Your task to perform on an android device: What's on my calendar today? Image 0: 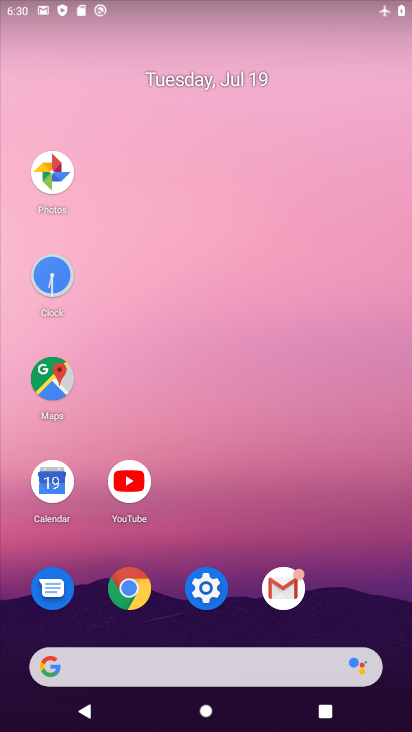
Step 0: click (60, 477)
Your task to perform on an android device: What's on my calendar today? Image 1: 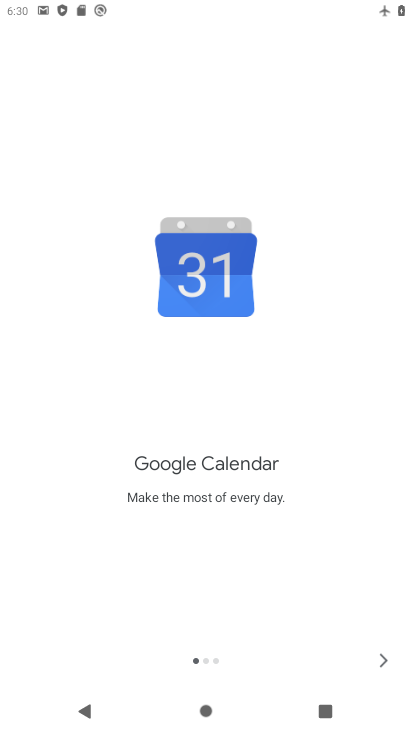
Step 1: click (385, 657)
Your task to perform on an android device: What's on my calendar today? Image 2: 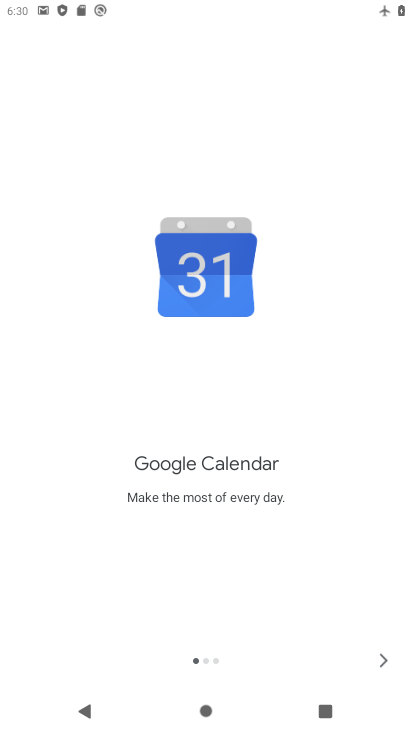
Step 2: click (385, 657)
Your task to perform on an android device: What's on my calendar today? Image 3: 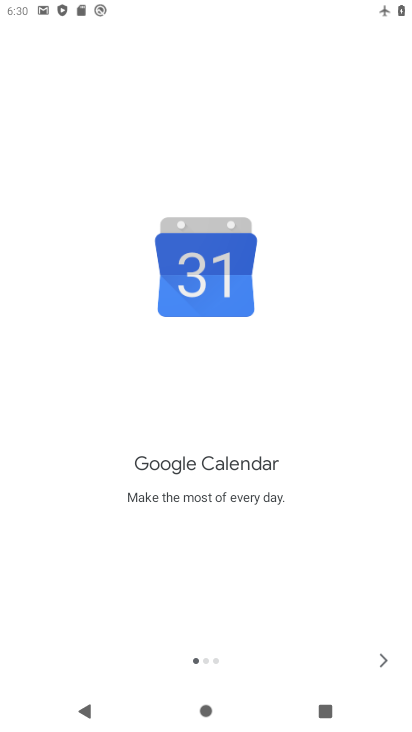
Step 3: click (385, 657)
Your task to perform on an android device: What's on my calendar today? Image 4: 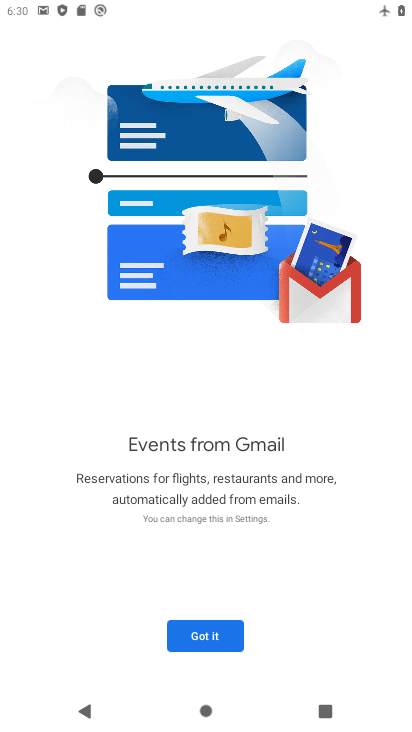
Step 4: click (201, 636)
Your task to perform on an android device: What's on my calendar today? Image 5: 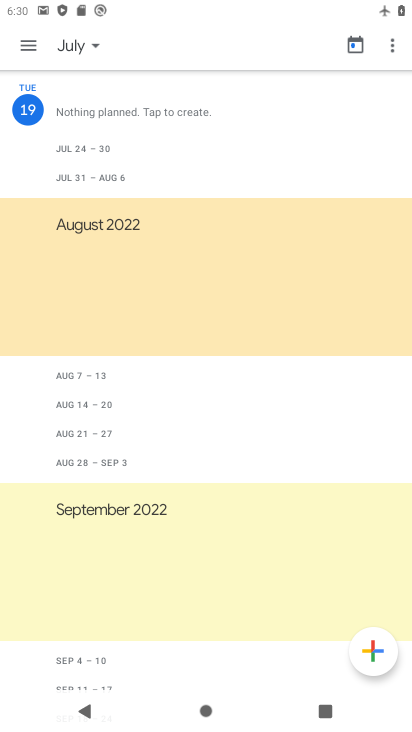
Step 5: click (32, 43)
Your task to perform on an android device: What's on my calendar today? Image 6: 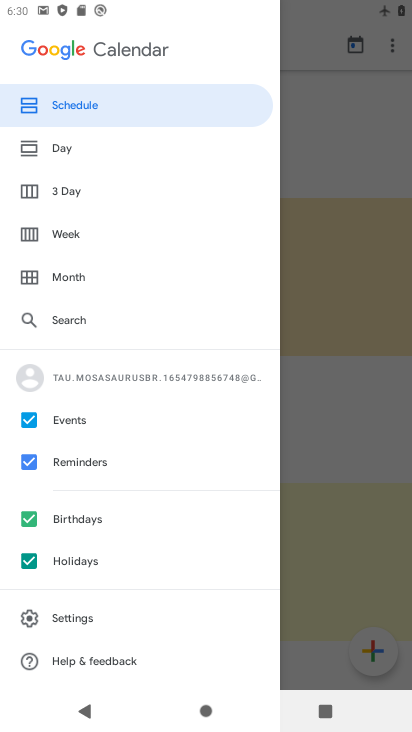
Step 6: click (62, 150)
Your task to perform on an android device: What's on my calendar today? Image 7: 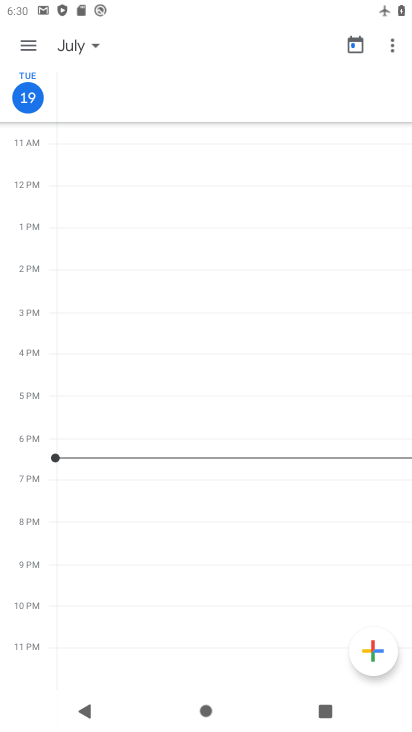
Step 7: task complete